Your task to perform on an android device: Open my contact list Image 0: 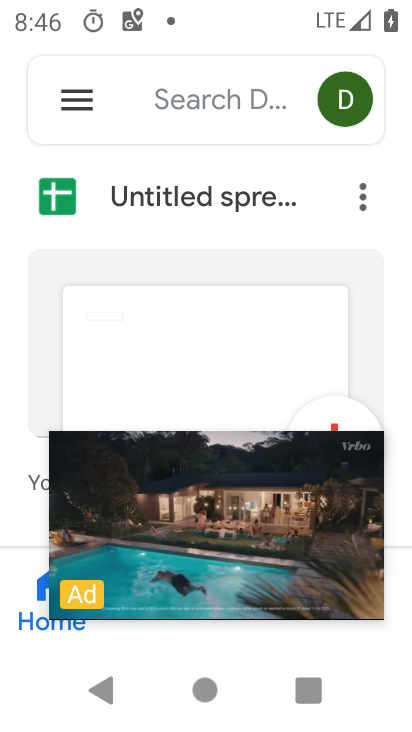
Step 0: drag from (215, 538) to (242, 224)
Your task to perform on an android device: Open my contact list Image 1: 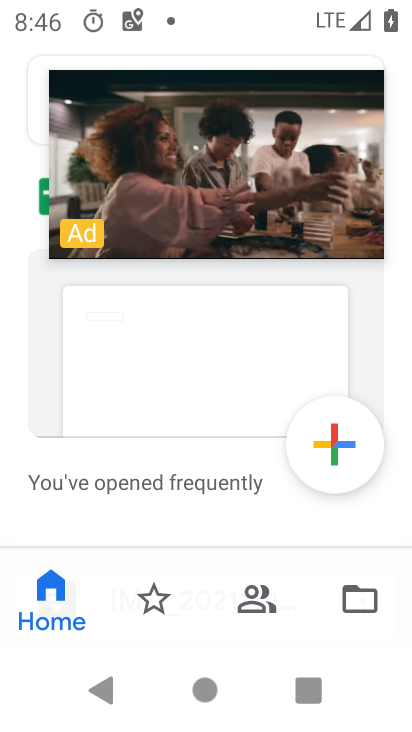
Step 1: drag from (276, 163) to (193, 730)
Your task to perform on an android device: Open my contact list Image 2: 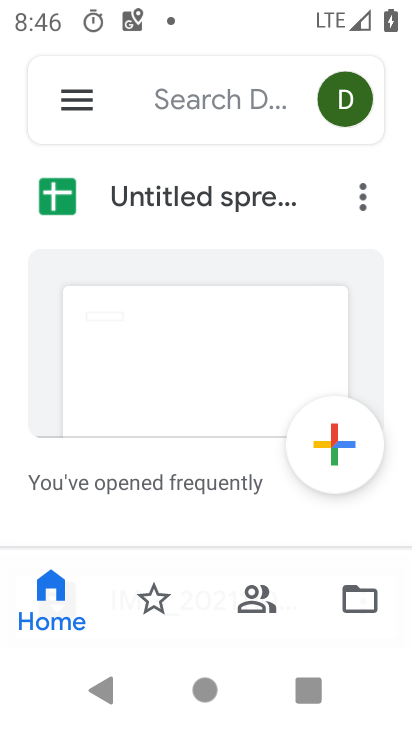
Step 2: press home button
Your task to perform on an android device: Open my contact list Image 3: 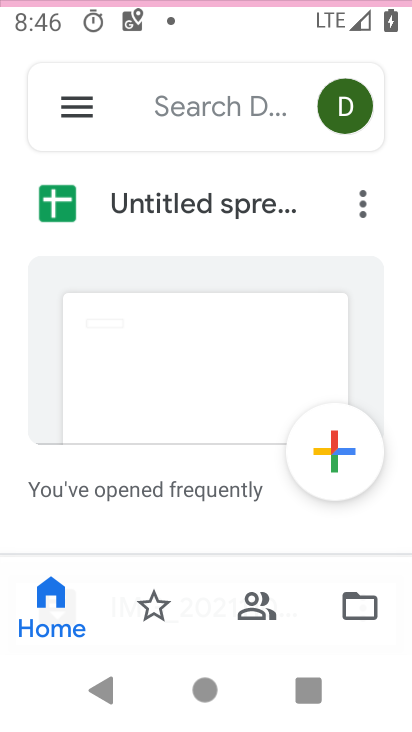
Step 3: press home button
Your task to perform on an android device: Open my contact list Image 4: 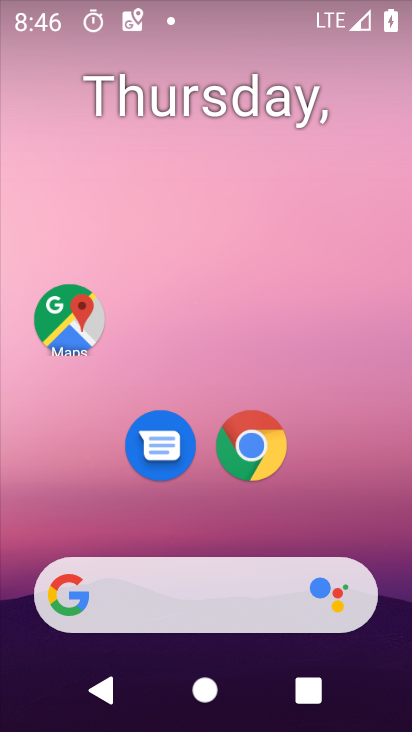
Step 4: drag from (195, 536) to (218, 46)
Your task to perform on an android device: Open my contact list Image 5: 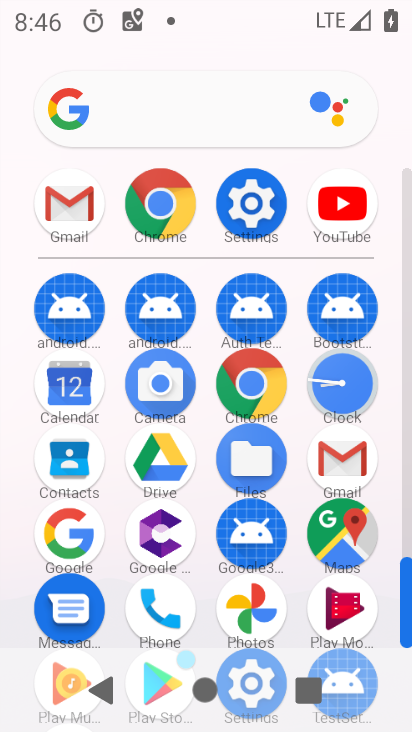
Step 5: click (68, 444)
Your task to perform on an android device: Open my contact list Image 6: 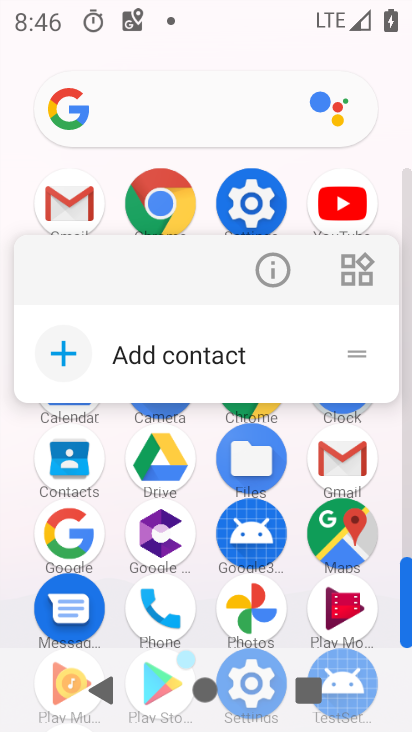
Step 6: click (271, 262)
Your task to perform on an android device: Open my contact list Image 7: 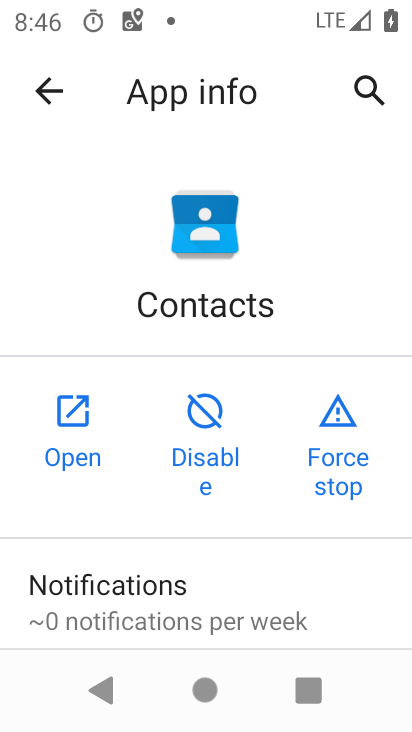
Step 7: click (75, 437)
Your task to perform on an android device: Open my contact list Image 8: 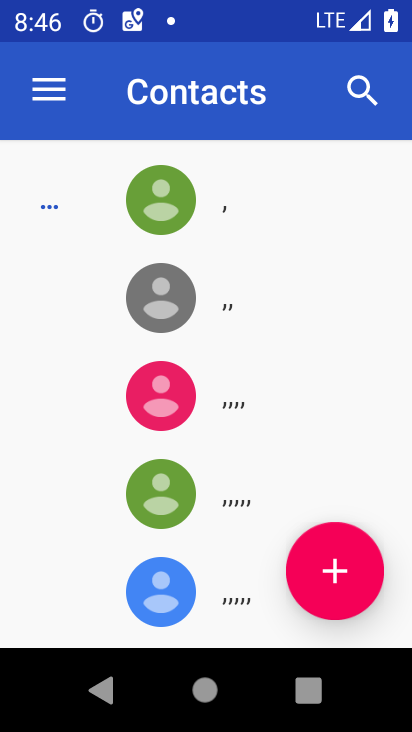
Step 8: click (72, 86)
Your task to perform on an android device: Open my contact list Image 9: 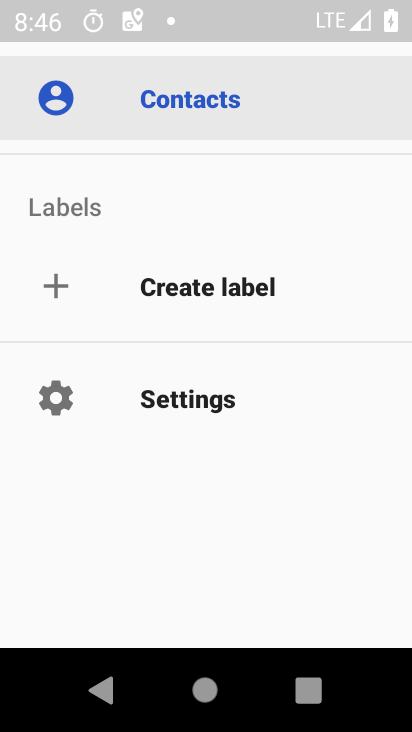
Step 9: click (164, 404)
Your task to perform on an android device: Open my contact list Image 10: 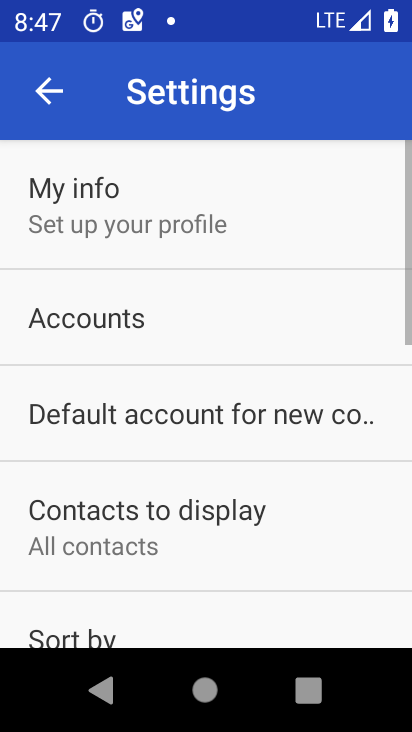
Step 10: click (8, 45)
Your task to perform on an android device: Open my contact list Image 11: 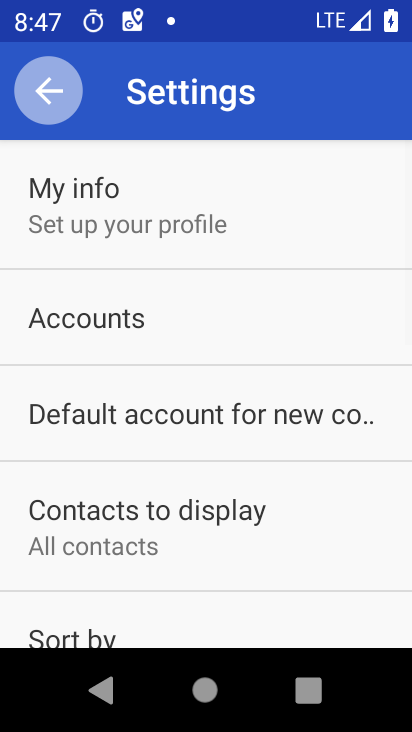
Step 11: click (37, 96)
Your task to perform on an android device: Open my contact list Image 12: 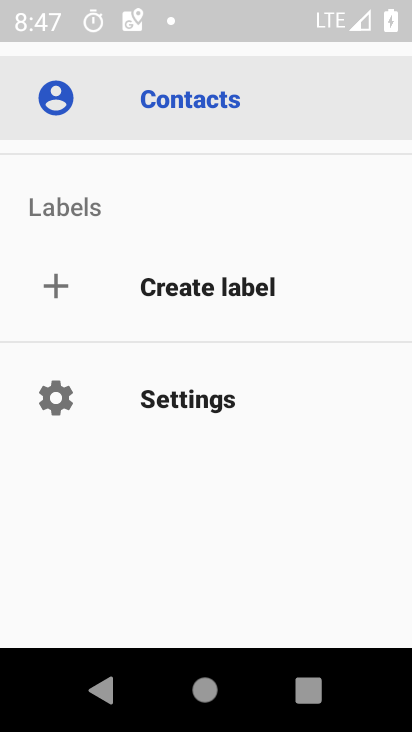
Step 12: task complete